Your task to perform on an android device: Go to location settings Image 0: 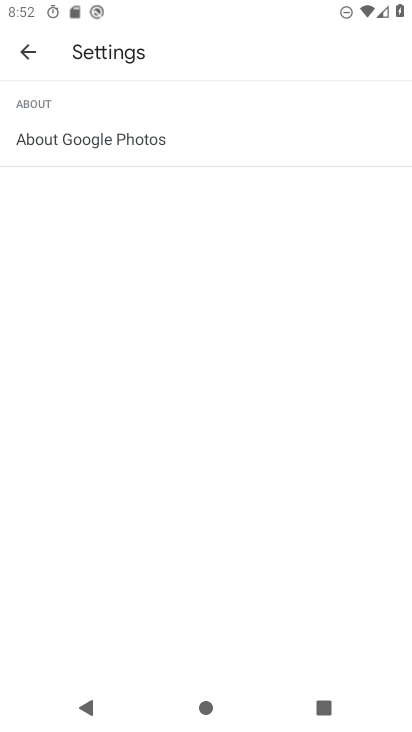
Step 0: press home button
Your task to perform on an android device: Go to location settings Image 1: 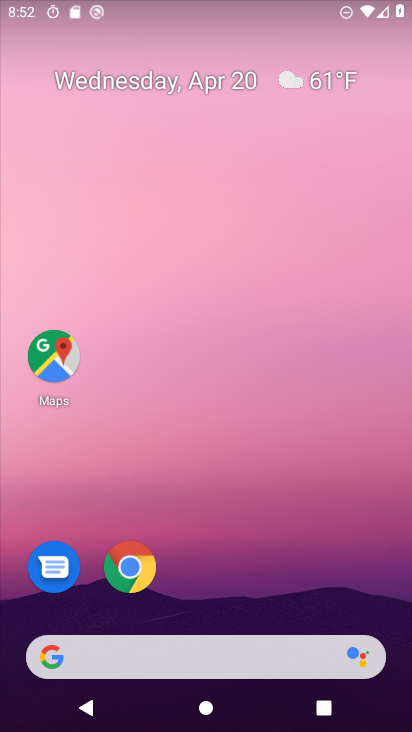
Step 1: drag from (350, 622) to (343, 15)
Your task to perform on an android device: Go to location settings Image 2: 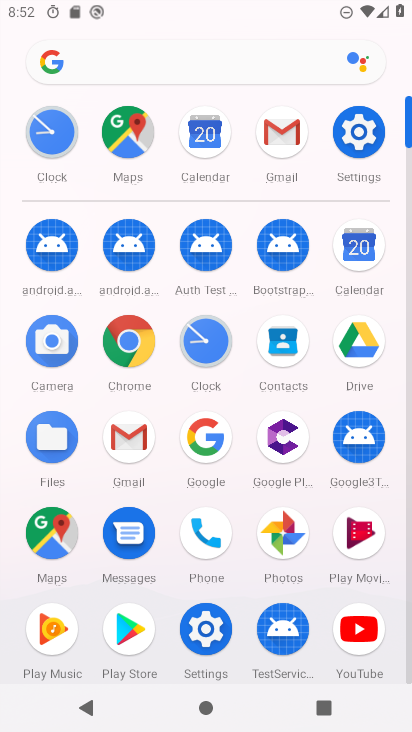
Step 2: click (353, 140)
Your task to perform on an android device: Go to location settings Image 3: 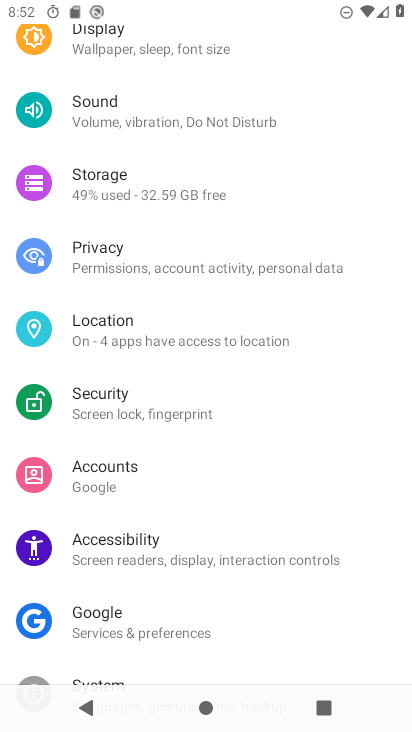
Step 3: click (122, 338)
Your task to perform on an android device: Go to location settings Image 4: 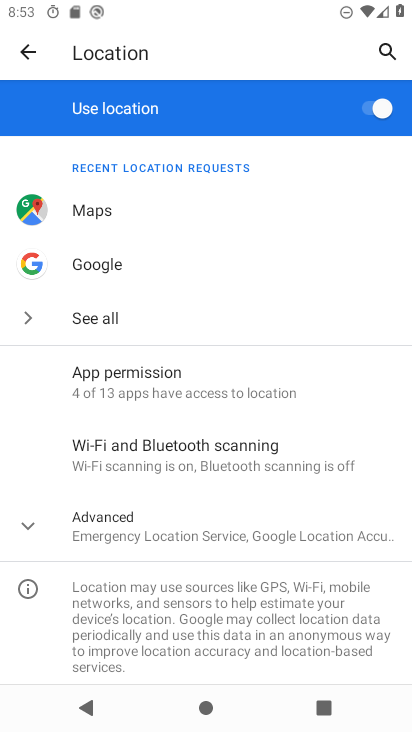
Step 4: task complete